Your task to perform on an android device: Go to Google maps Image 0: 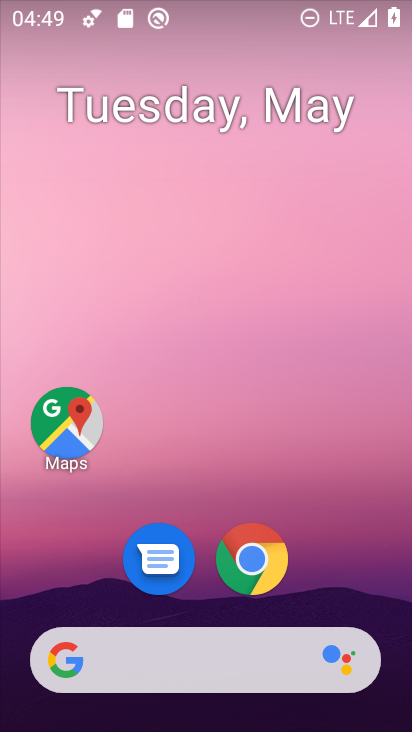
Step 0: drag from (230, 709) to (203, 218)
Your task to perform on an android device: Go to Google maps Image 1: 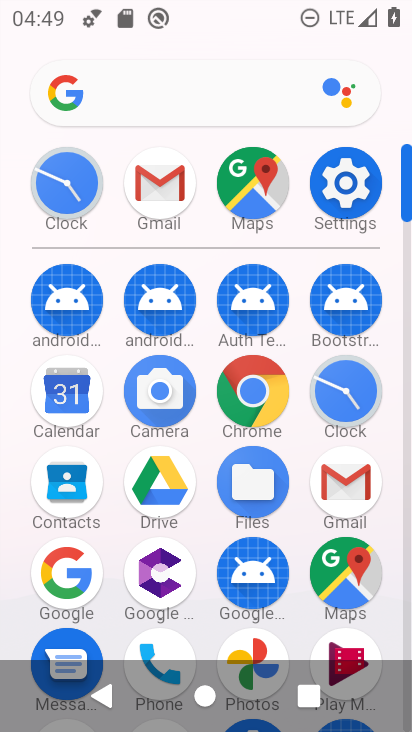
Step 1: click (338, 584)
Your task to perform on an android device: Go to Google maps Image 2: 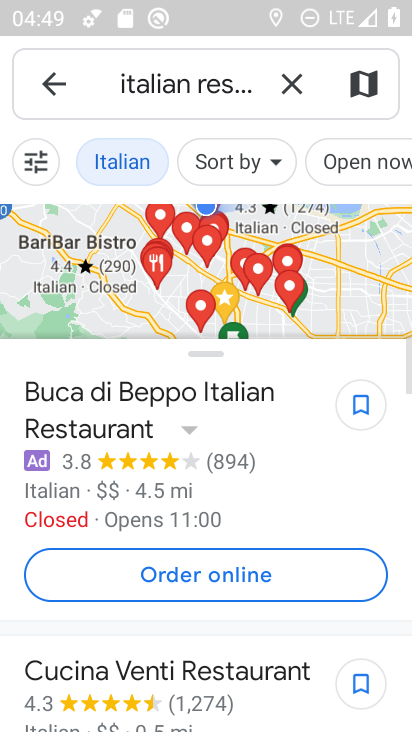
Step 2: task complete